Your task to perform on an android device: turn smart compose on in the gmail app Image 0: 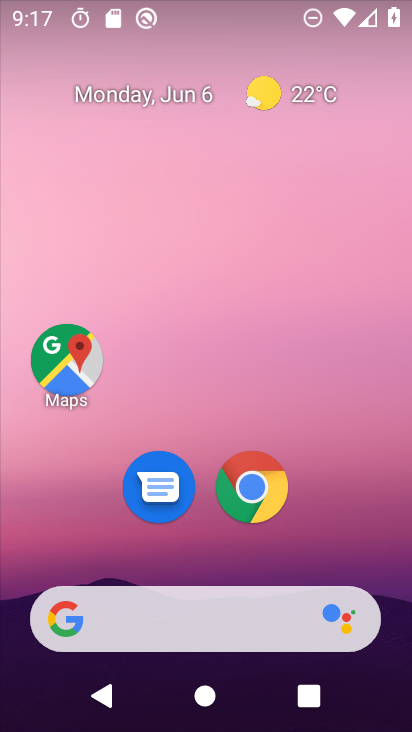
Step 0: drag from (336, 414) to (206, 32)
Your task to perform on an android device: turn smart compose on in the gmail app Image 1: 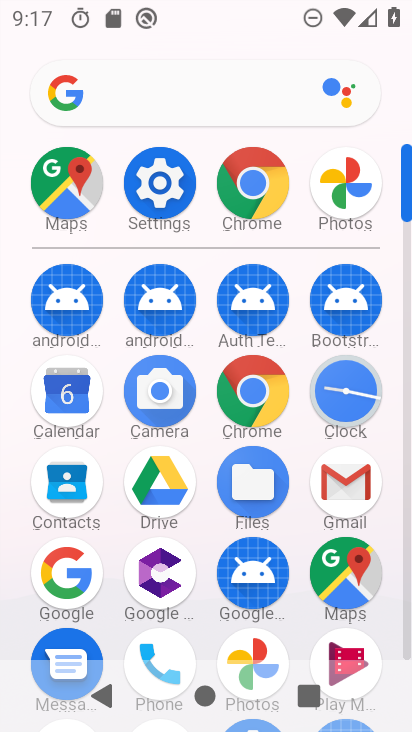
Step 1: click (364, 502)
Your task to perform on an android device: turn smart compose on in the gmail app Image 2: 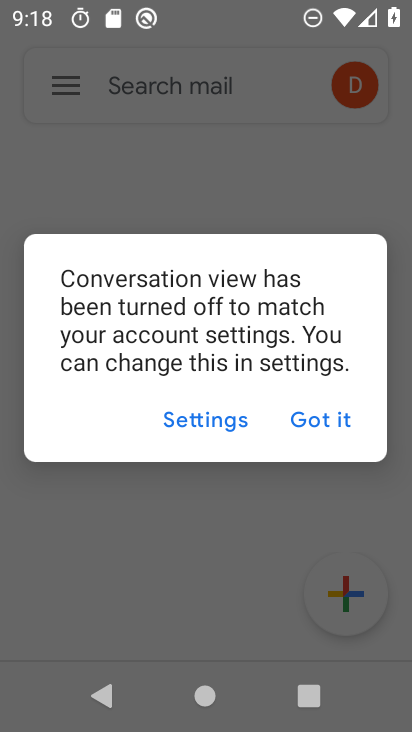
Step 2: click (319, 408)
Your task to perform on an android device: turn smart compose on in the gmail app Image 3: 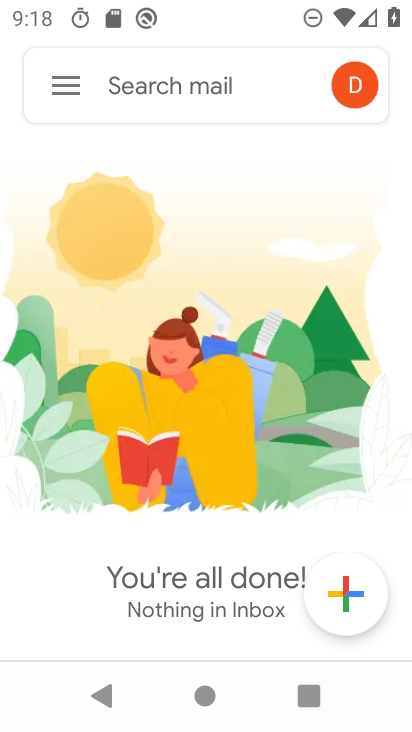
Step 3: click (55, 78)
Your task to perform on an android device: turn smart compose on in the gmail app Image 4: 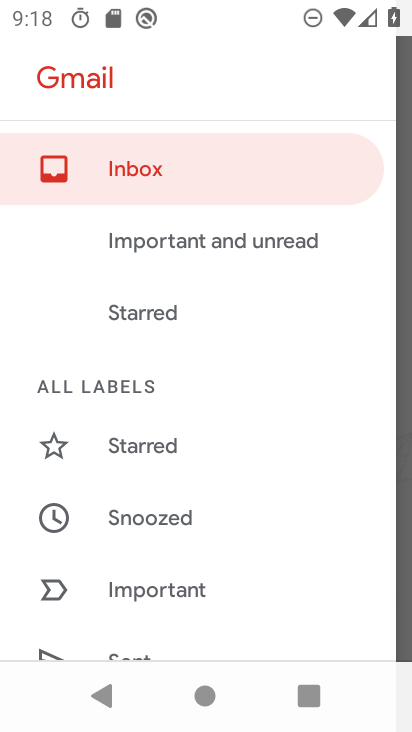
Step 4: drag from (153, 645) to (211, 150)
Your task to perform on an android device: turn smart compose on in the gmail app Image 5: 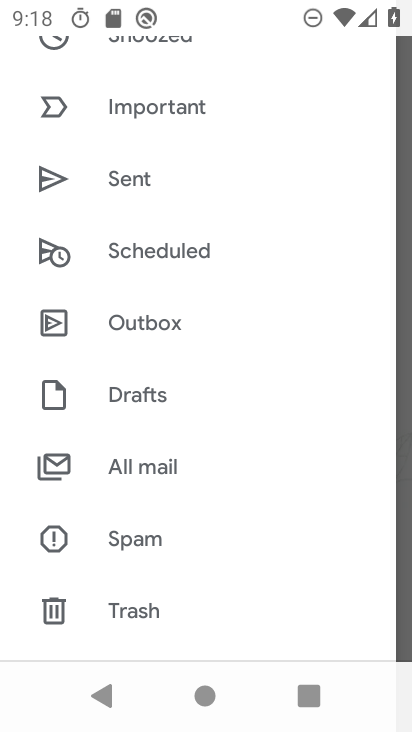
Step 5: drag from (90, 628) to (209, 115)
Your task to perform on an android device: turn smart compose on in the gmail app Image 6: 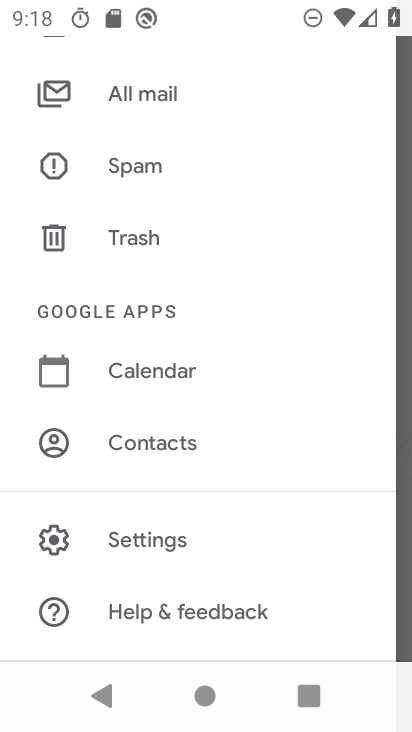
Step 6: click (109, 534)
Your task to perform on an android device: turn smart compose on in the gmail app Image 7: 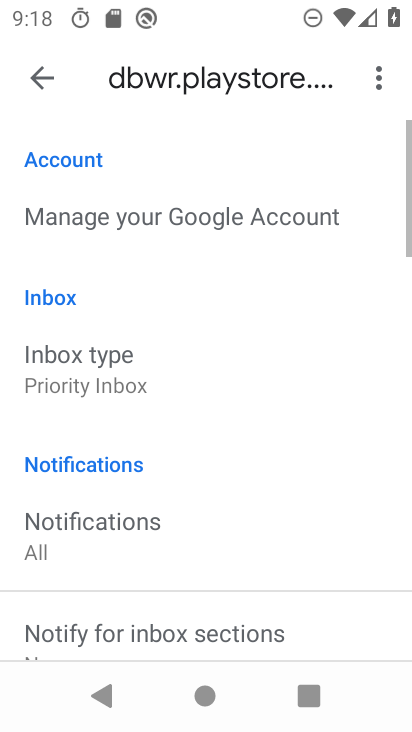
Step 7: task complete